Your task to perform on an android device: change notifications settings Image 0: 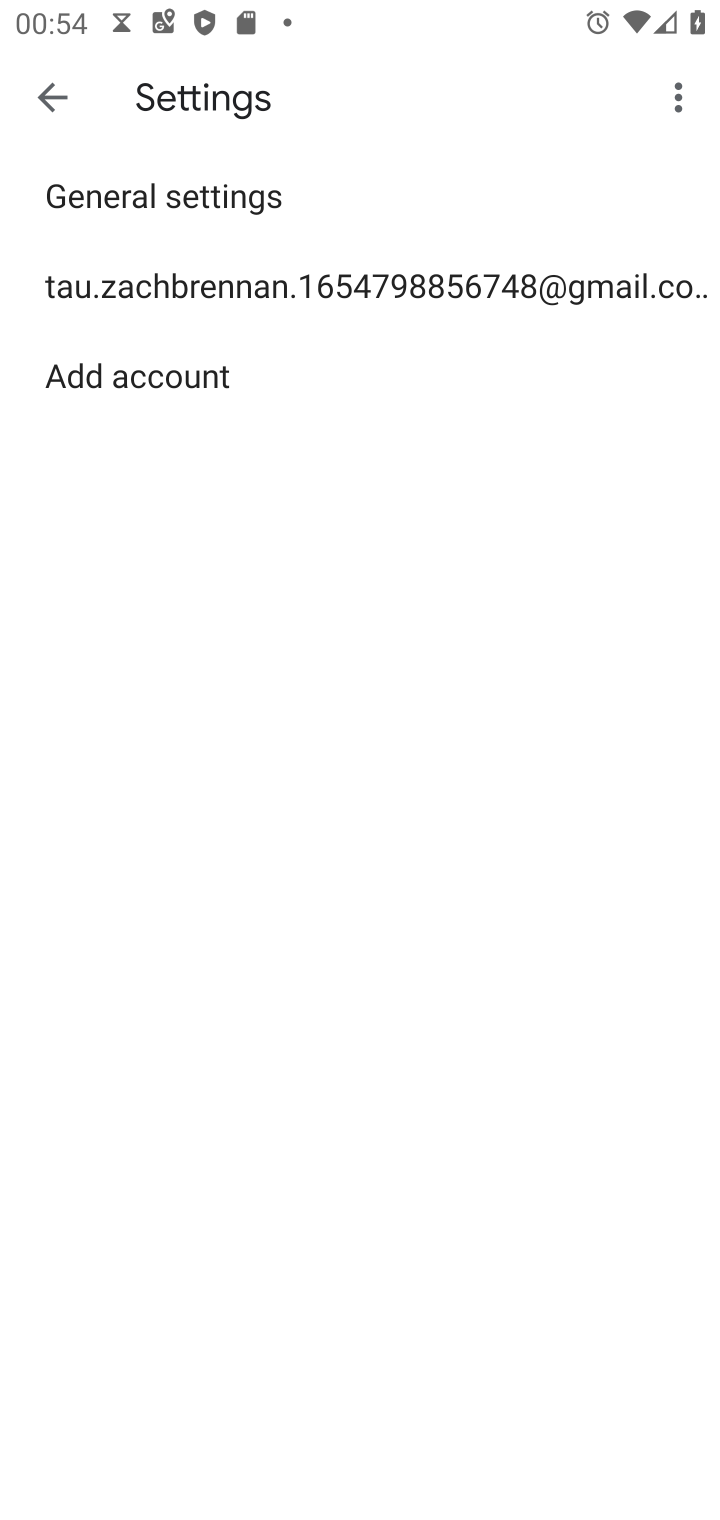
Step 0: press home button
Your task to perform on an android device: change notifications settings Image 1: 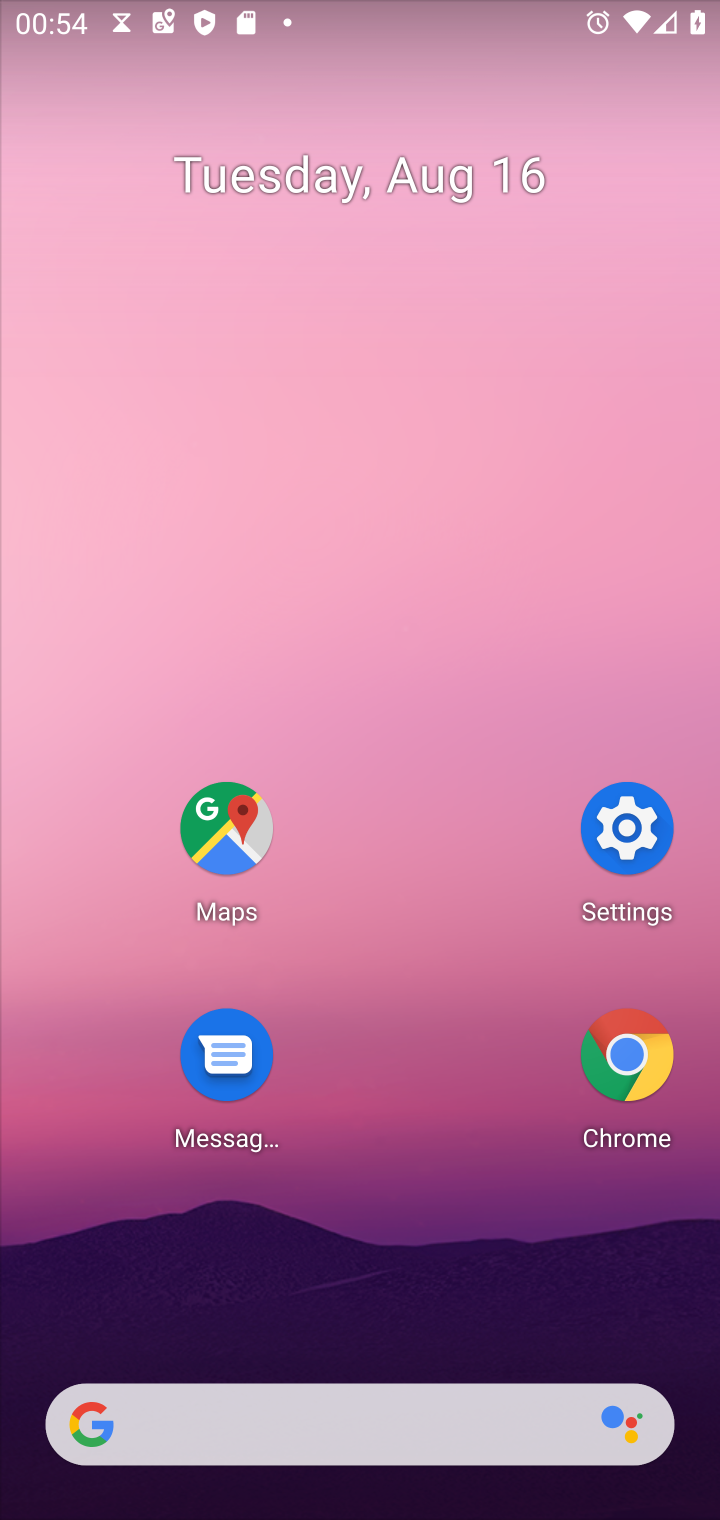
Step 1: click (618, 808)
Your task to perform on an android device: change notifications settings Image 2: 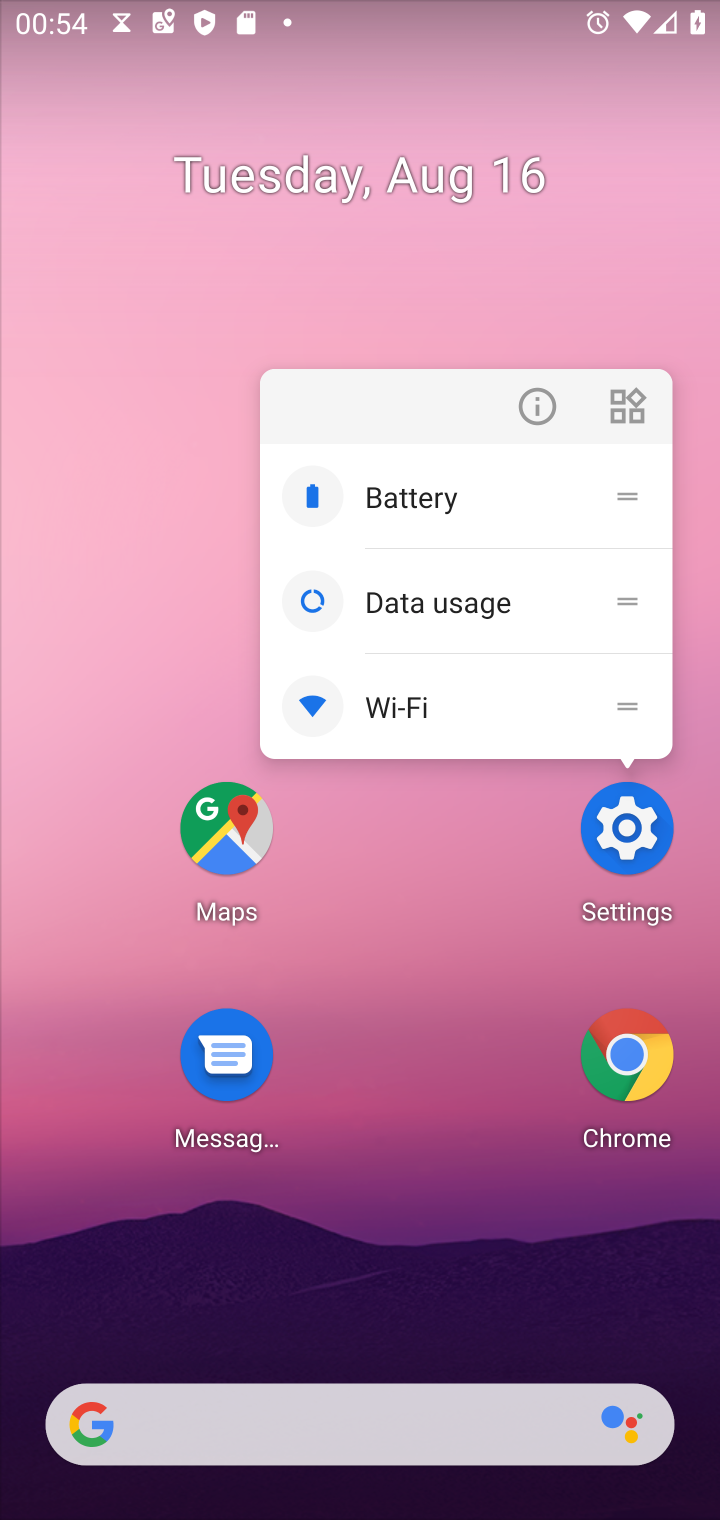
Step 2: click (628, 835)
Your task to perform on an android device: change notifications settings Image 3: 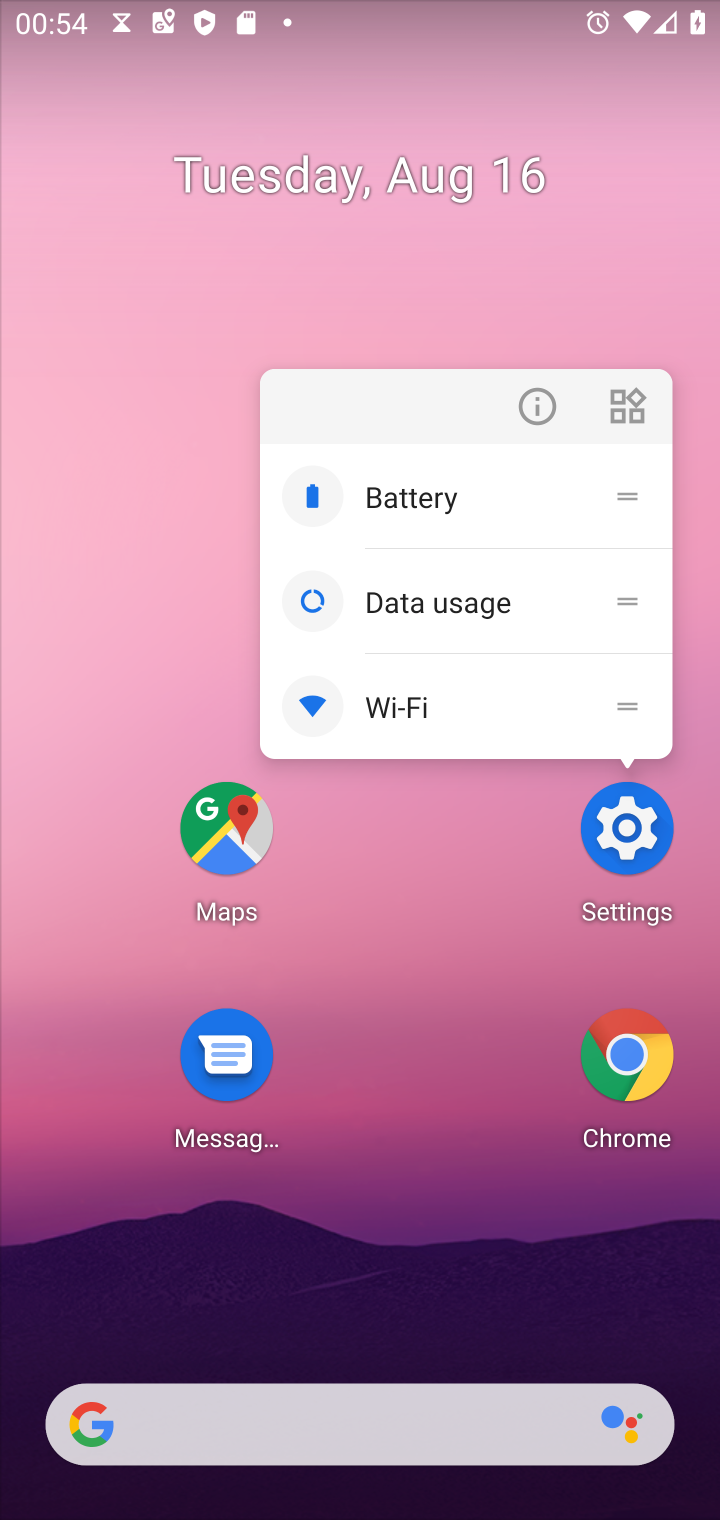
Step 3: click (629, 847)
Your task to perform on an android device: change notifications settings Image 4: 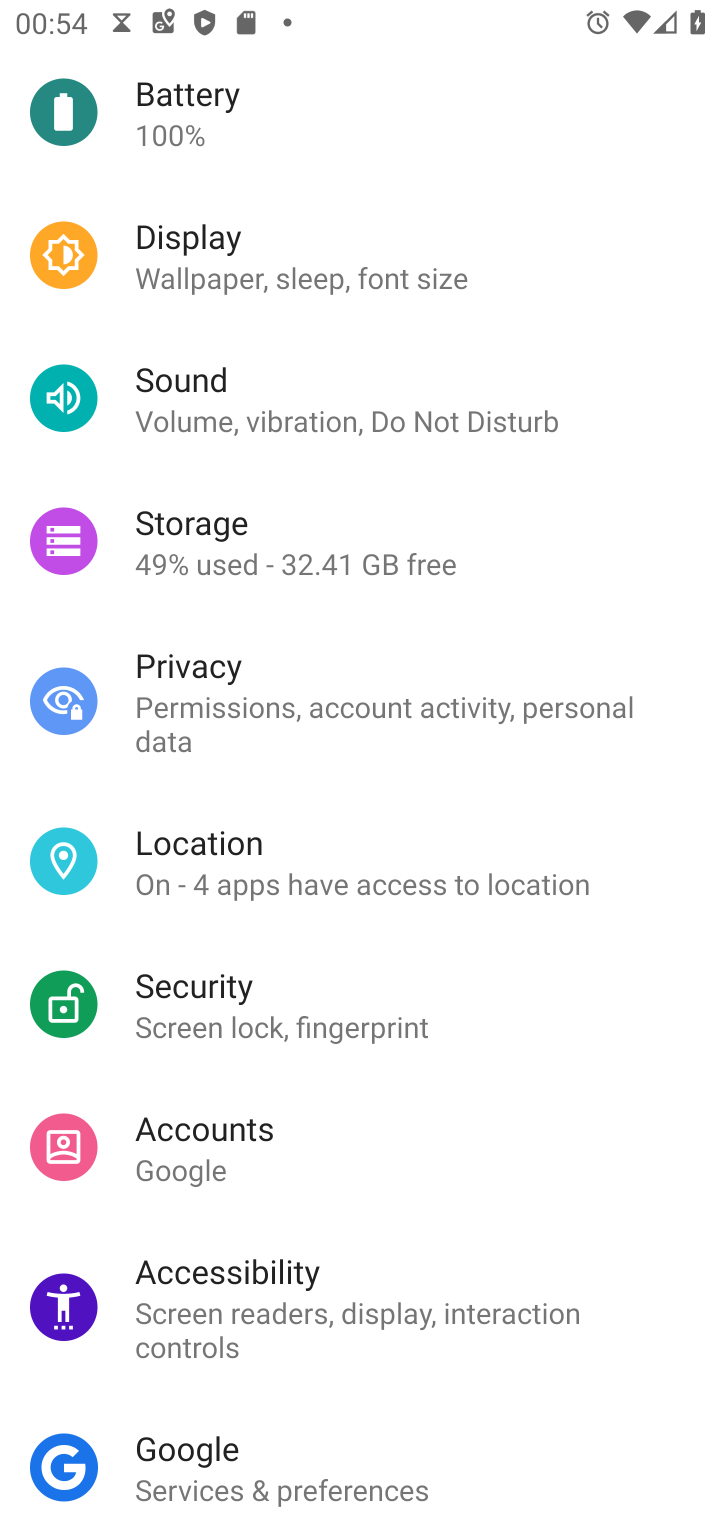
Step 4: drag from (553, 177) to (536, 1200)
Your task to perform on an android device: change notifications settings Image 5: 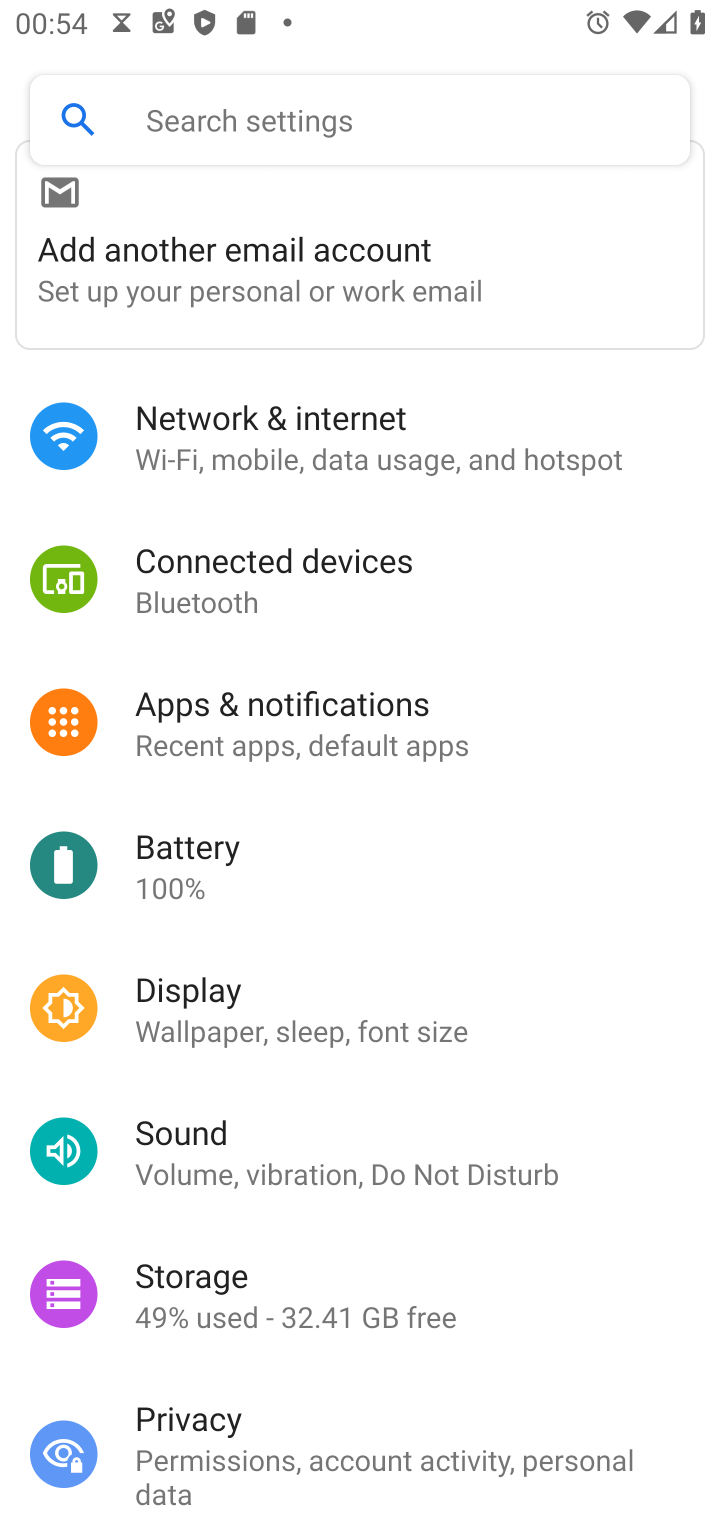
Step 5: click (293, 708)
Your task to perform on an android device: change notifications settings Image 6: 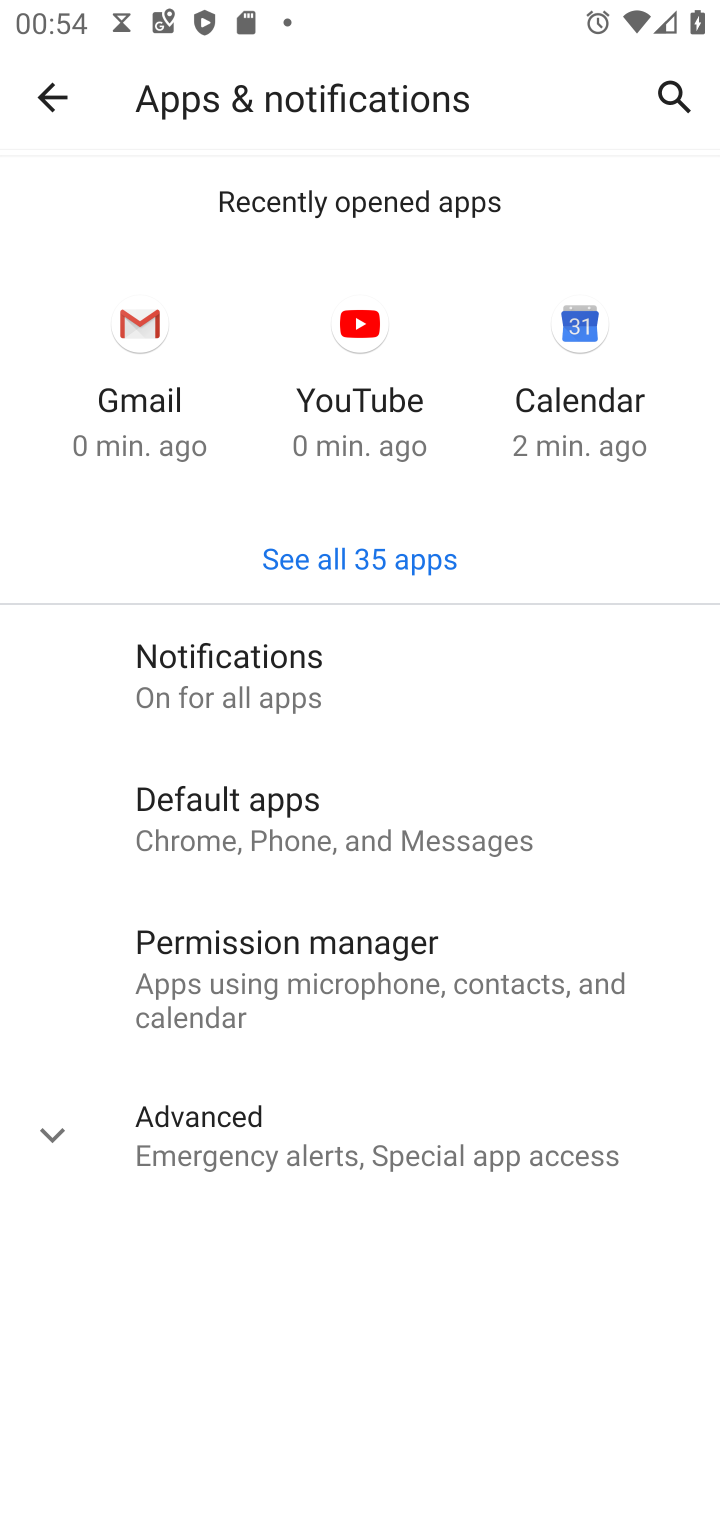
Step 6: click (272, 667)
Your task to perform on an android device: change notifications settings Image 7: 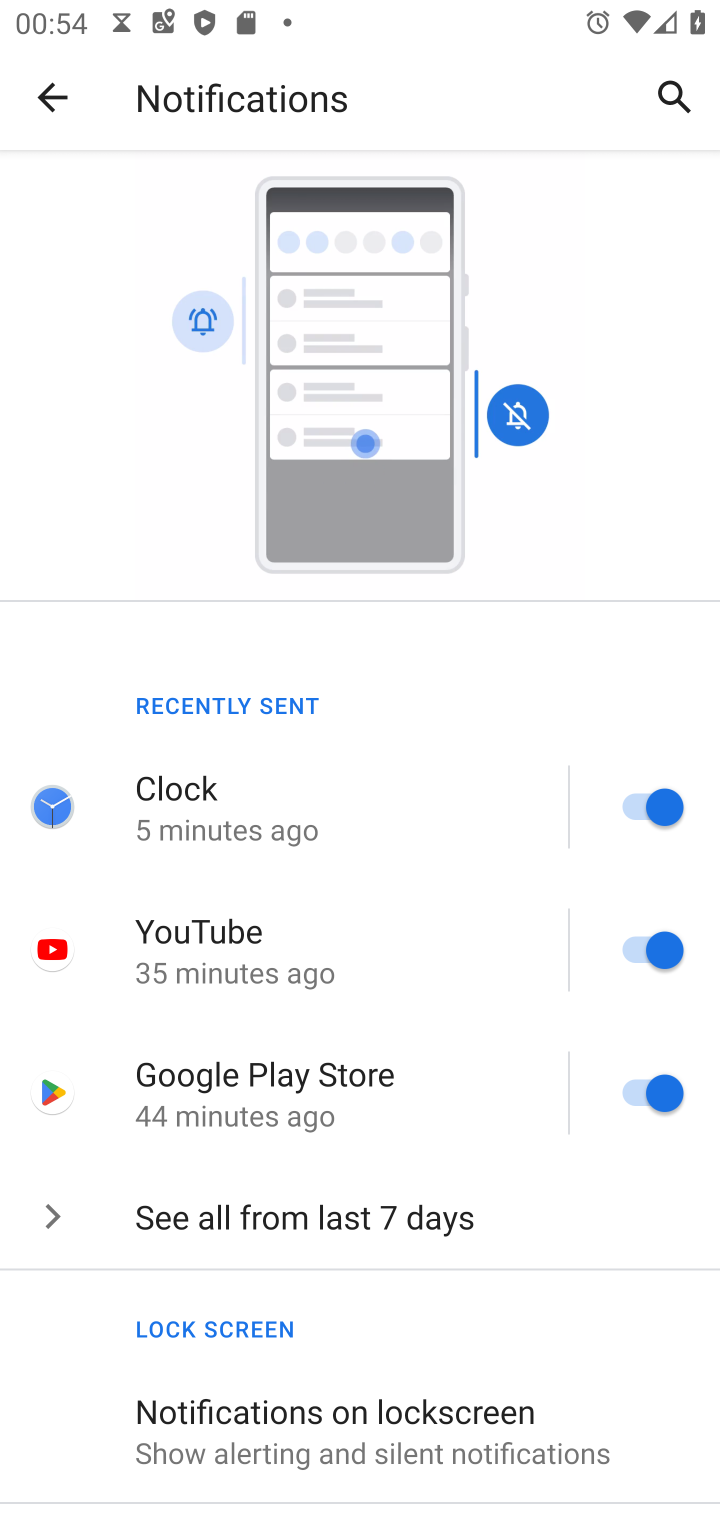
Step 7: task complete